Your task to perform on an android device: Do I have any events tomorrow? Image 0: 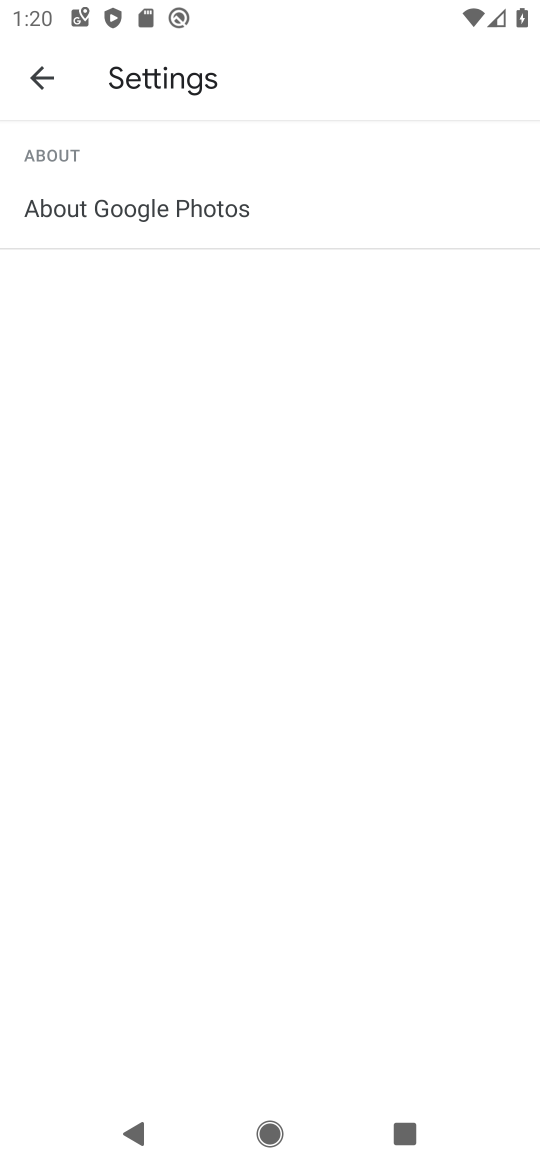
Step 0: press home button
Your task to perform on an android device: Do I have any events tomorrow? Image 1: 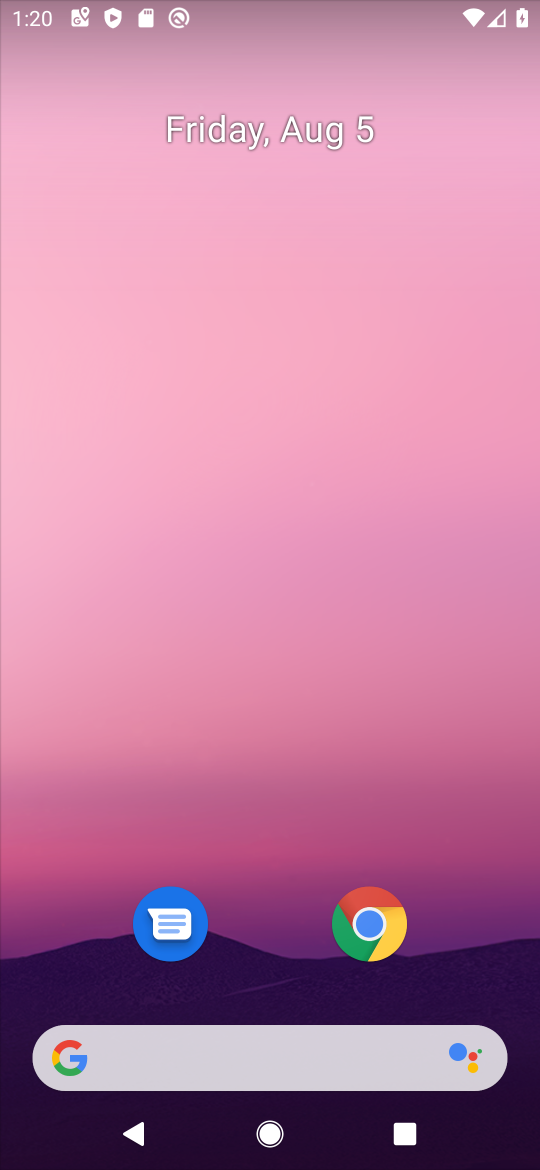
Step 1: drag from (233, 1066) to (328, 90)
Your task to perform on an android device: Do I have any events tomorrow? Image 2: 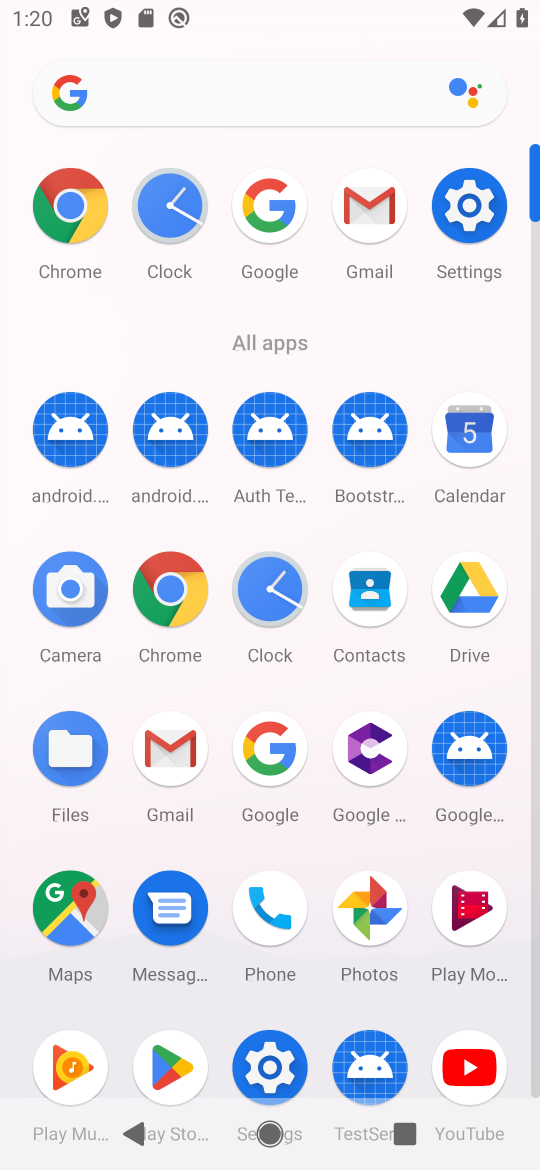
Step 2: click (468, 434)
Your task to perform on an android device: Do I have any events tomorrow? Image 3: 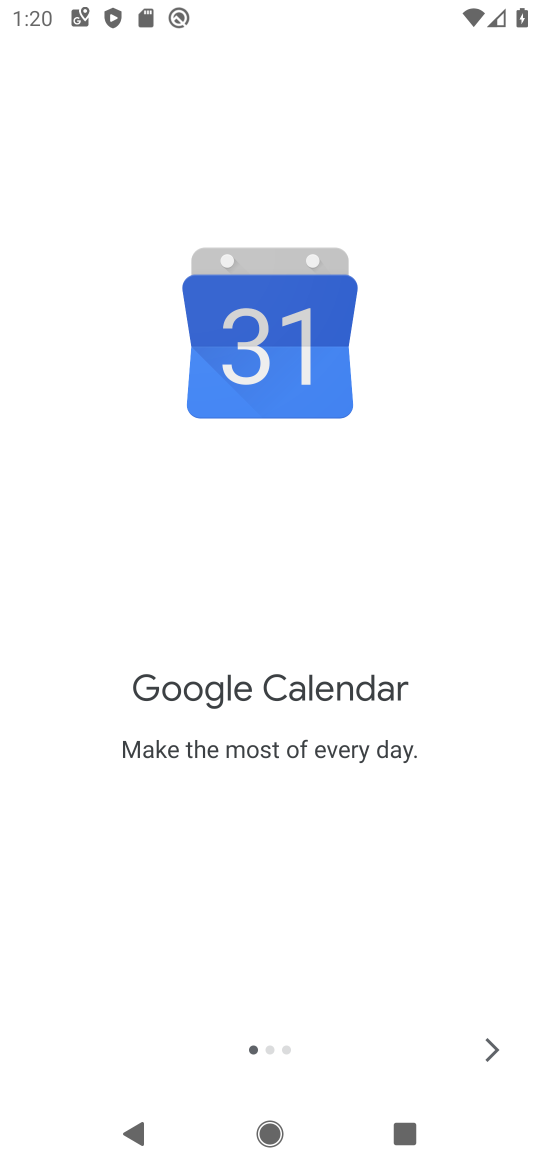
Step 3: click (497, 1049)
Your task to perform on an android device: Do I have any events tomorrow? Image 4: 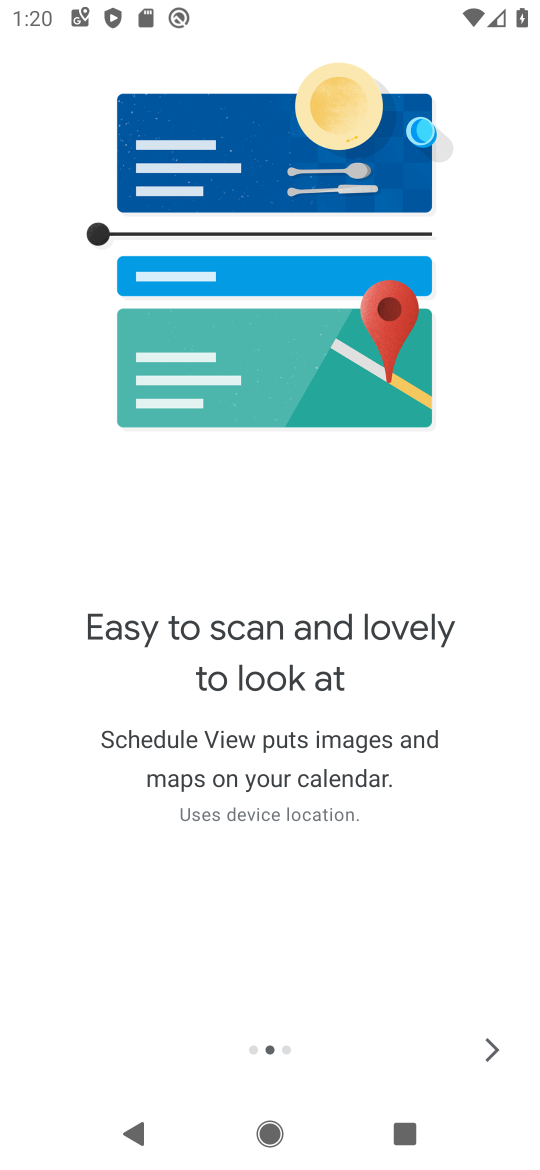
Step 4: click (497, 1049)
Your task to perform on an android device: Do I have any events tomorrow? Image 5: 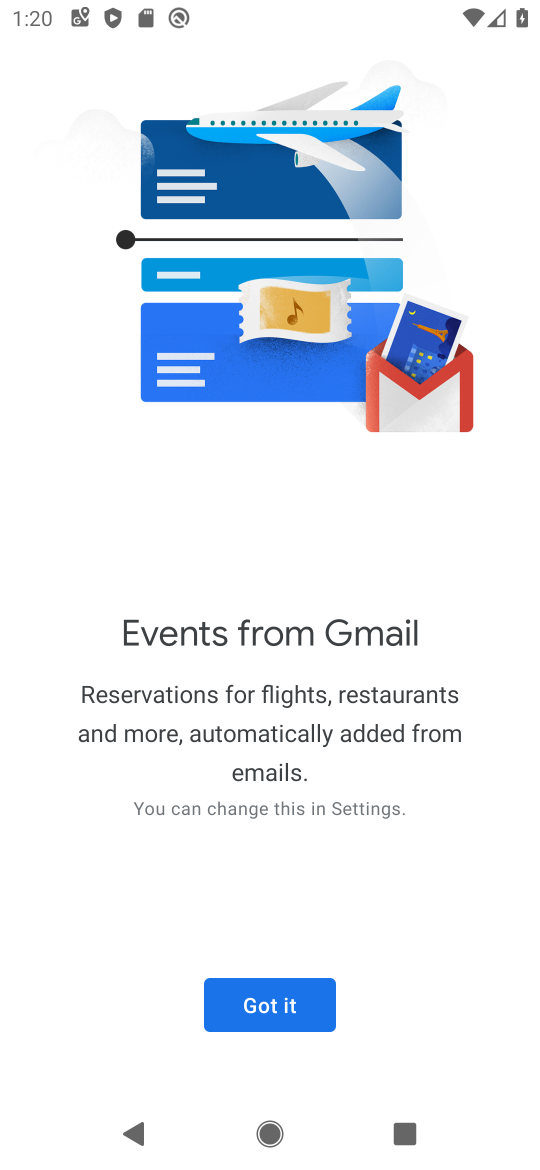
Step 5: click (289, 1001)
Your task to perform on an android device: Do I have any events tomorrow? Image 6: 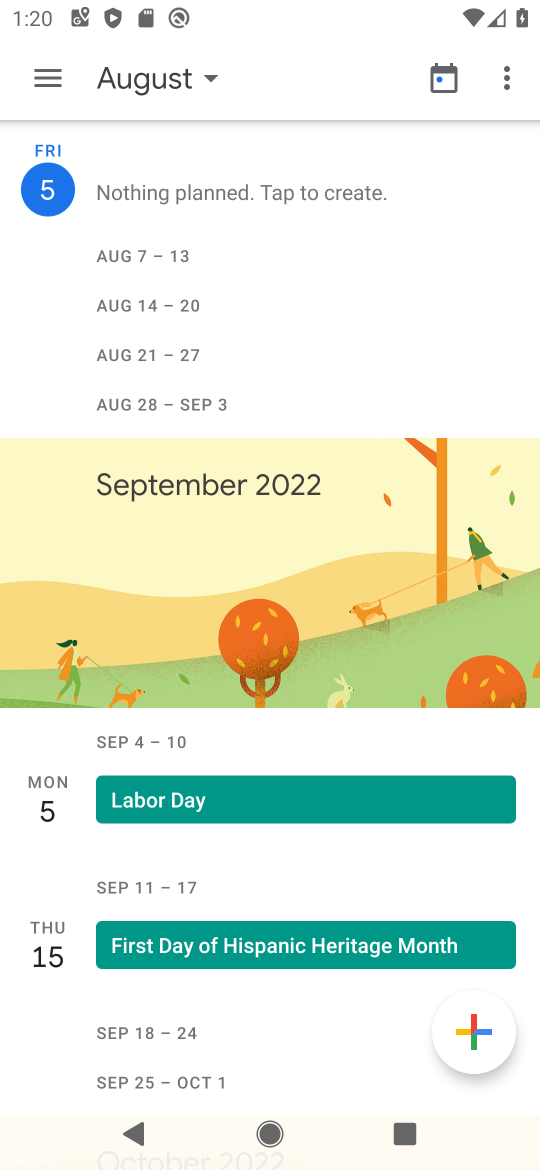
Step 6: click (216, 78)
Your task to perform on an android device: Do I have any events tomorrow? Image 7: 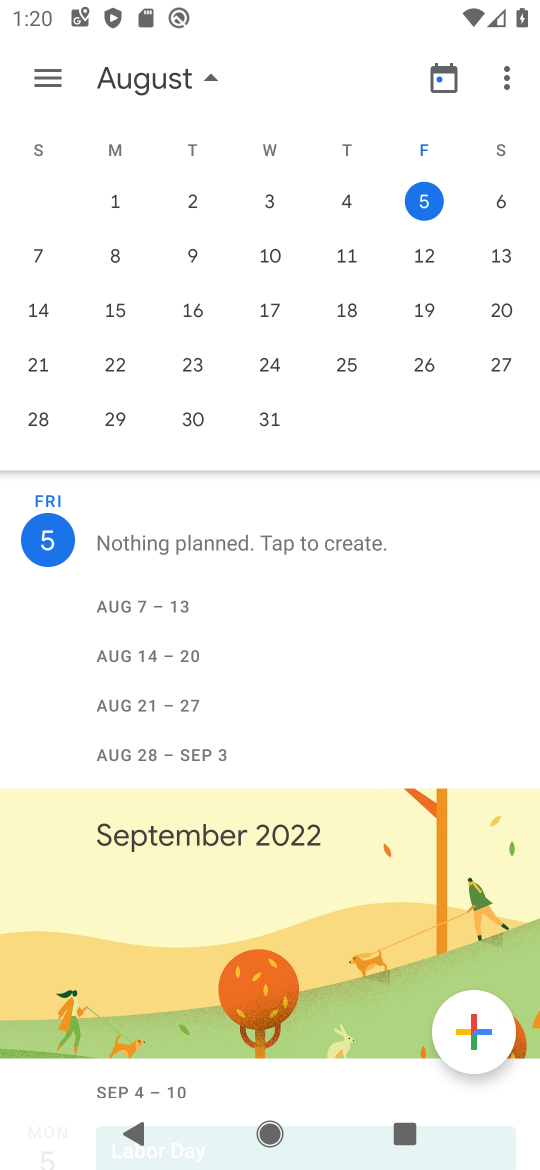
Step 7: click (501, 204)
Your task to perform on an android device: Do I have any events tomorrow? Image 8: 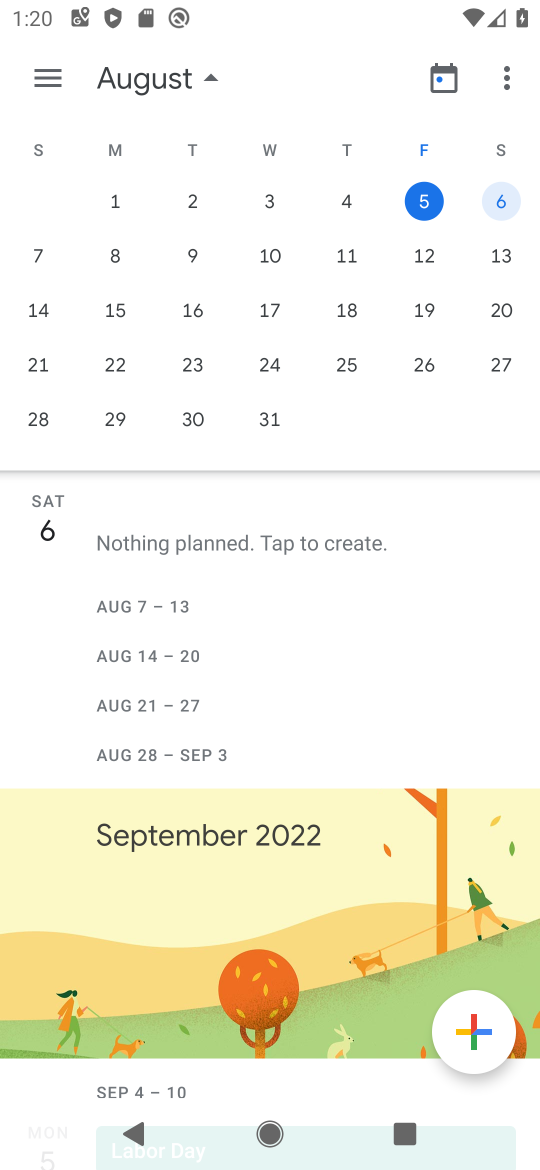
Step 8: click (209, 536)
Your task to perform on an android device: Do I have any events tomorrow? Image 9: 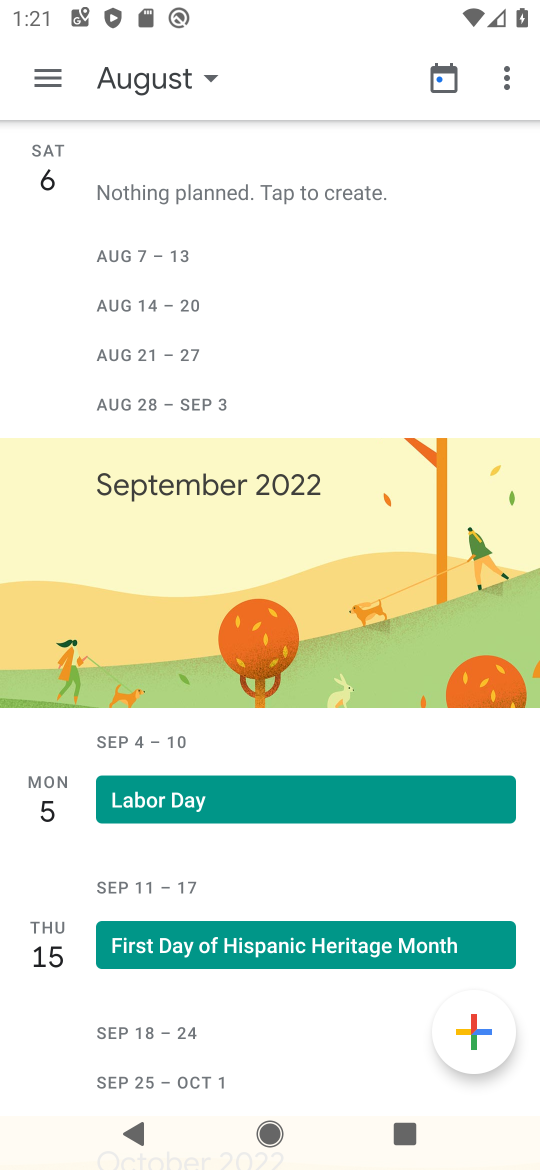
Step 9: click (233, 197)
Your task to perform on an android device: Do I have any events tomorrow? Image 10: 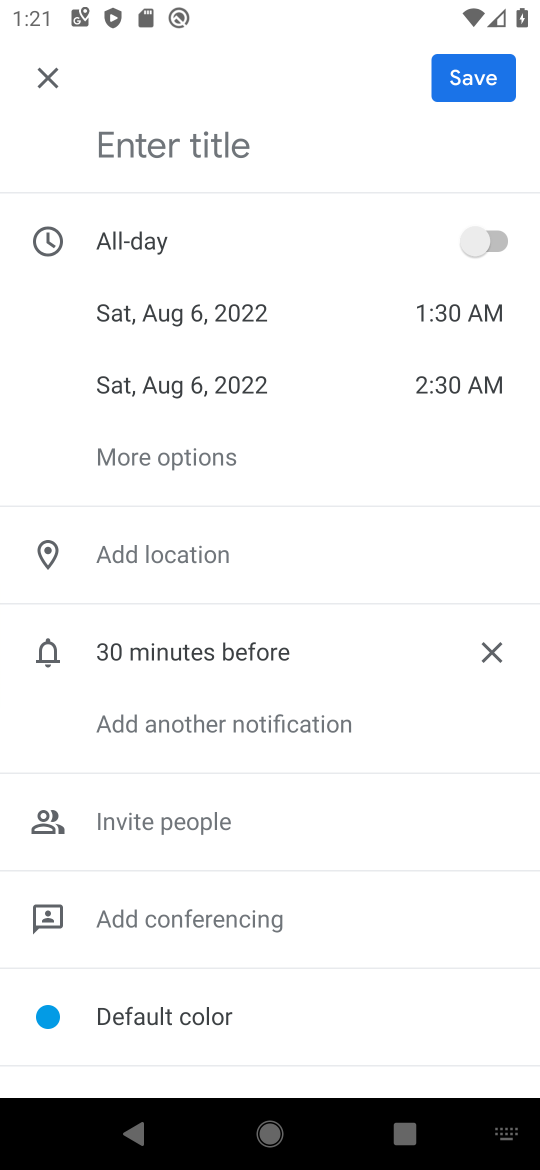
Step 10: type "meet"
Your task to perform on an android device: Do I have any events tomorrow? Image 11: 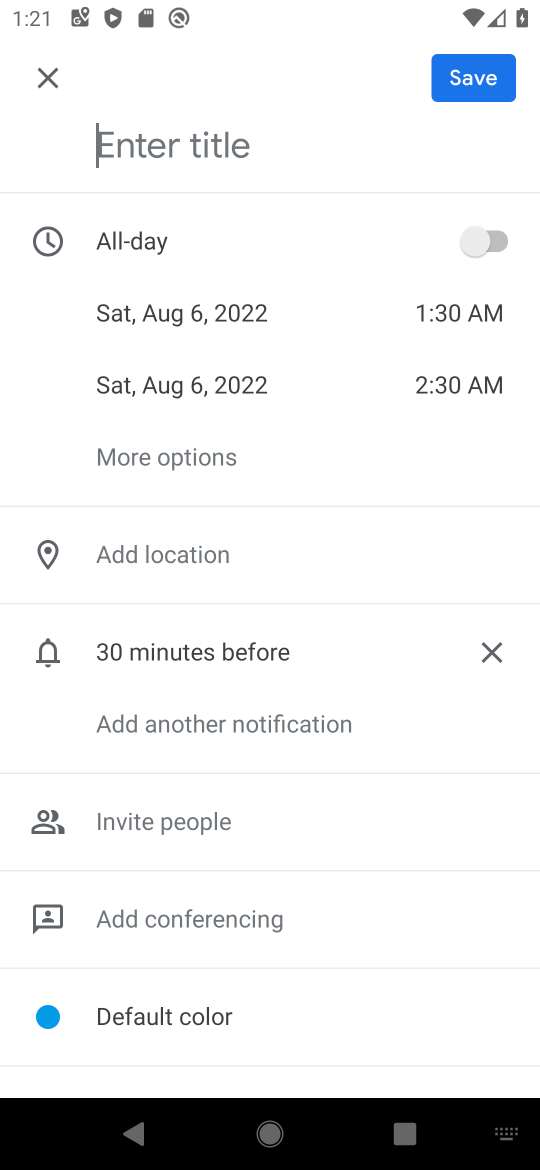
Step 11: click (492, 237)
Your task to perform on an android device: Do I have any events tomorrow? Image 12: 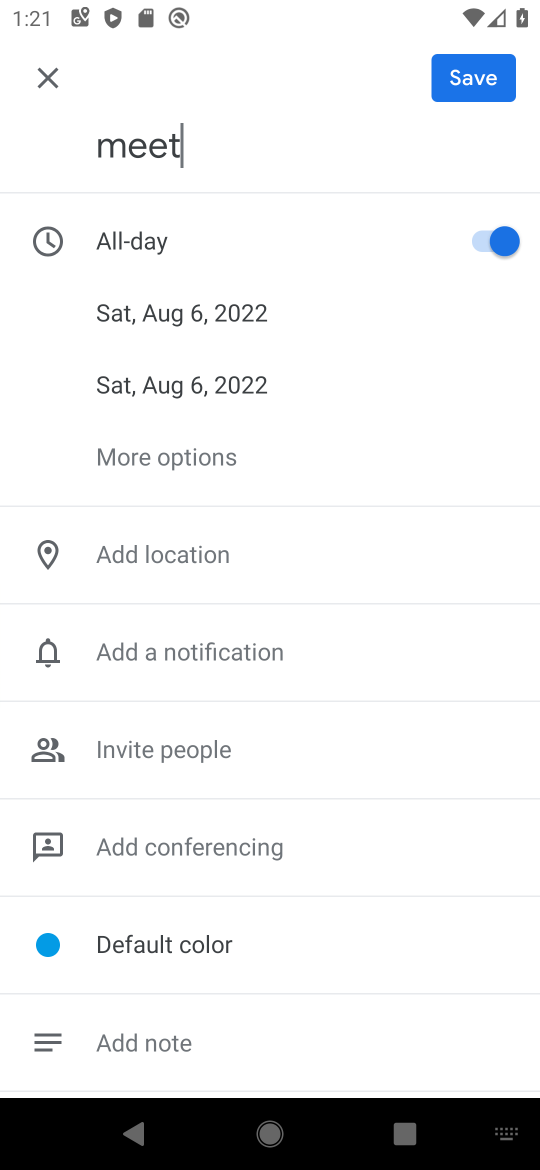
Step 12: click (509, 69)
Your task to perform on an android device: Do I have any events tomorrow? Image 13: 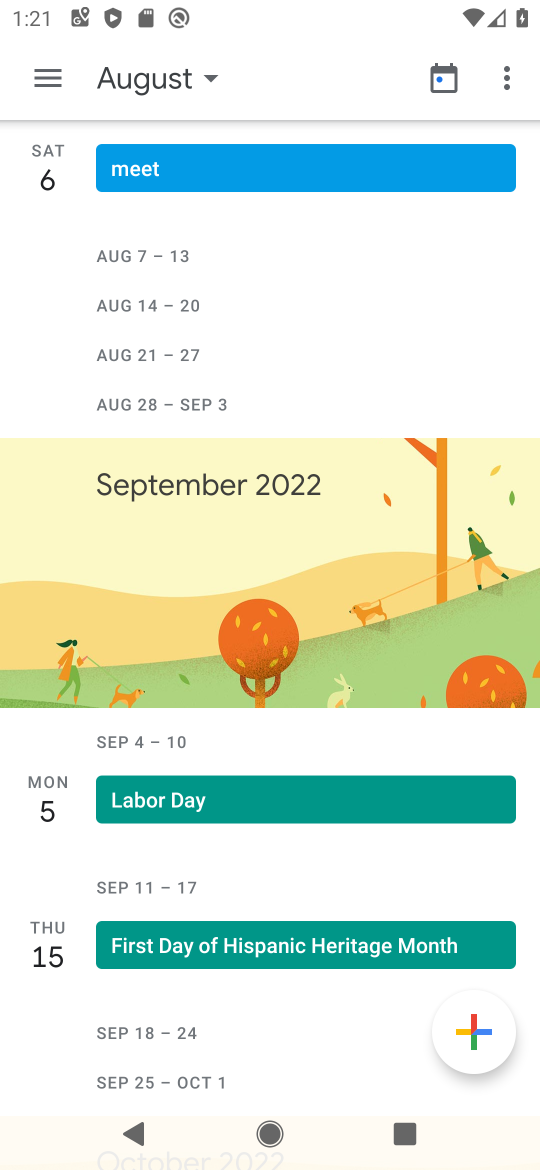
Step 13: task complete